Your task to perform on an android device: change timer sound Image 0: 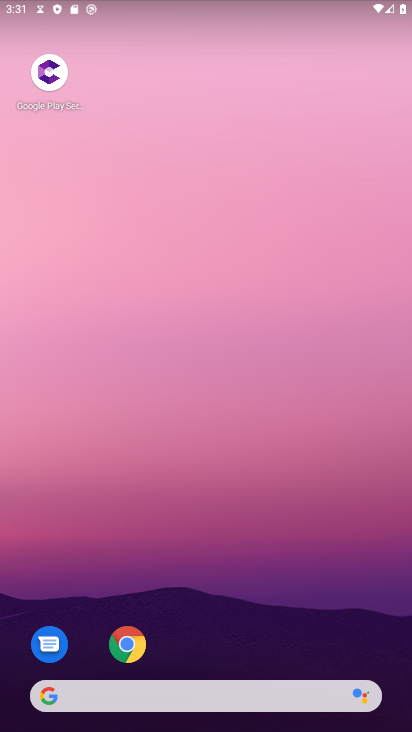
Step 0: drag from (235, 641) to (204, 78)
Your task to perform on an android device: change timer sound Image 1: 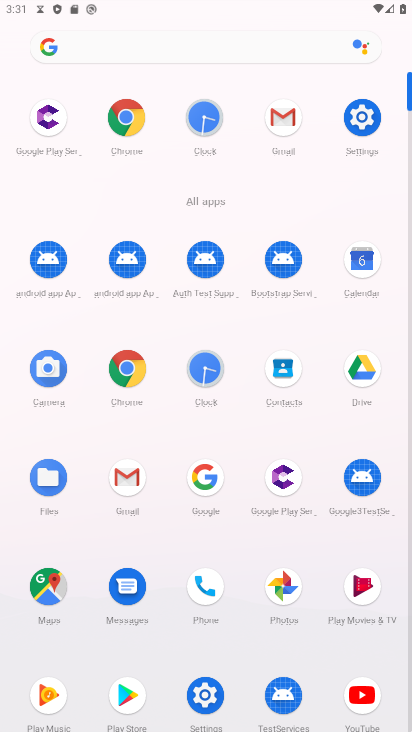
Step 1: click (209, 370)
Your task to perform on an android device: change timer sound Image 2: 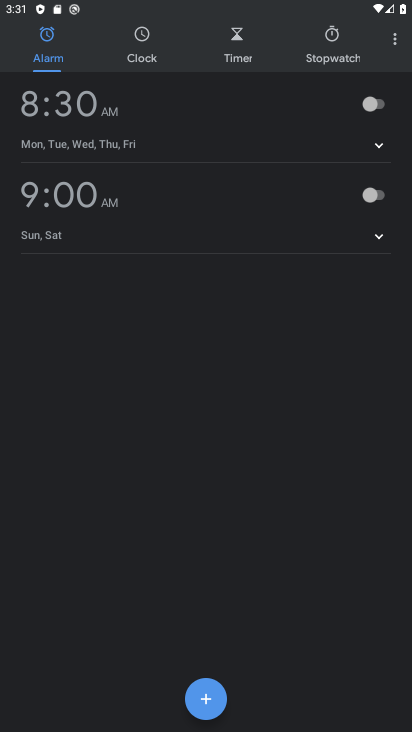
Step 2: click (395, 41)
Your task to perform on an android device: change timer sound Image 3: 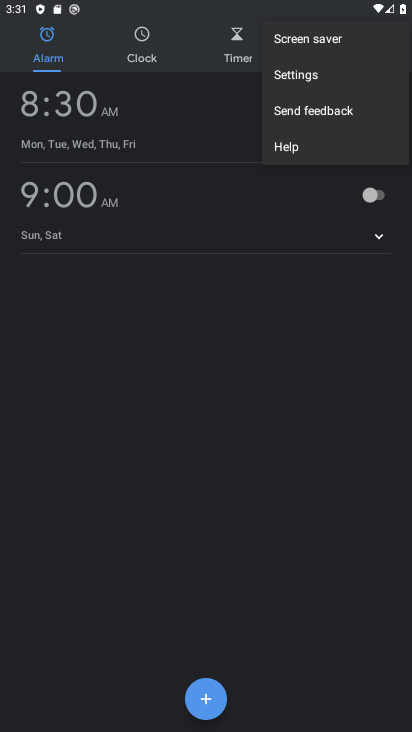
Step 3: click (300, 84)
Your task to perform on an android device: change timer sound Image 4: 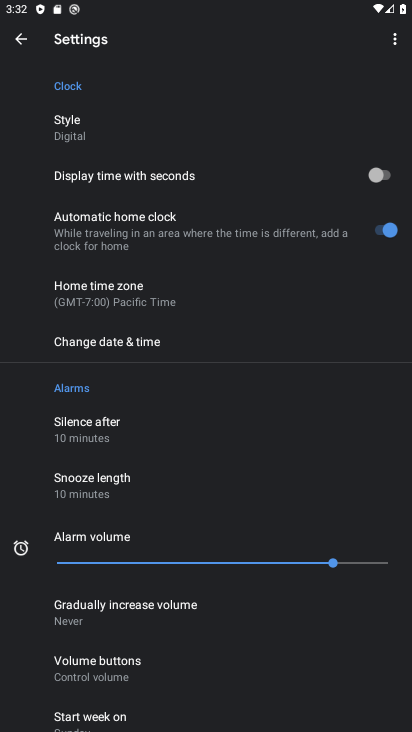
Step 4: drag from (121, 549) to (175, 455)
Your task to perform on an android device: change timer sound Image 5: 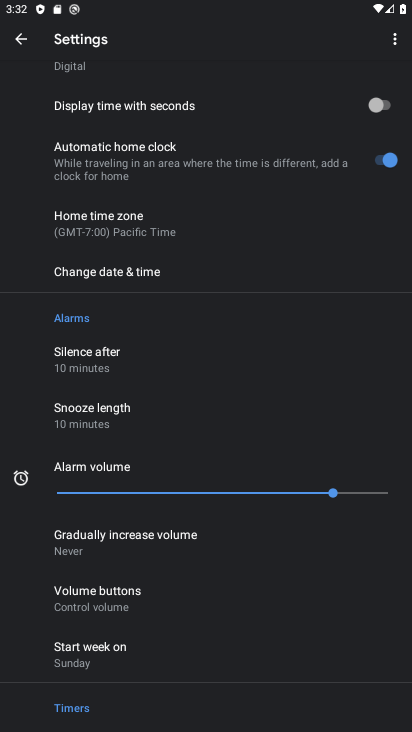
Step 5: drag from (159, 587) to (211, 420)
Your task to perform on an android device: change timer sound Image 6: 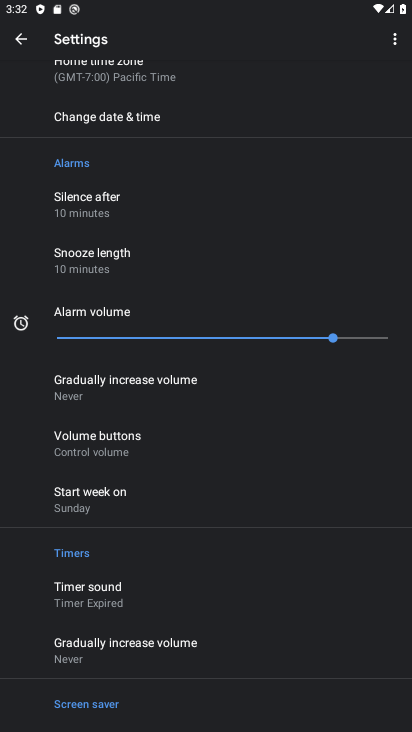
Step 6: drag from (153, 574) to (207, 491)
Your task to perform on an android device: change timer sound Image 7: 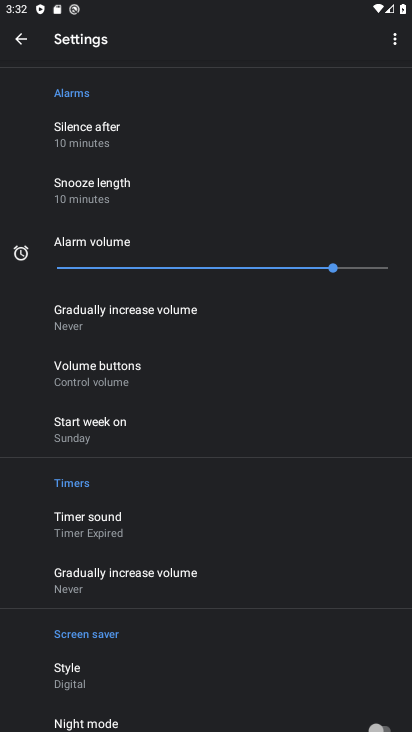
Step 7: click (122, 522)
Your task to perform on an android device: change timer sound Image 8: 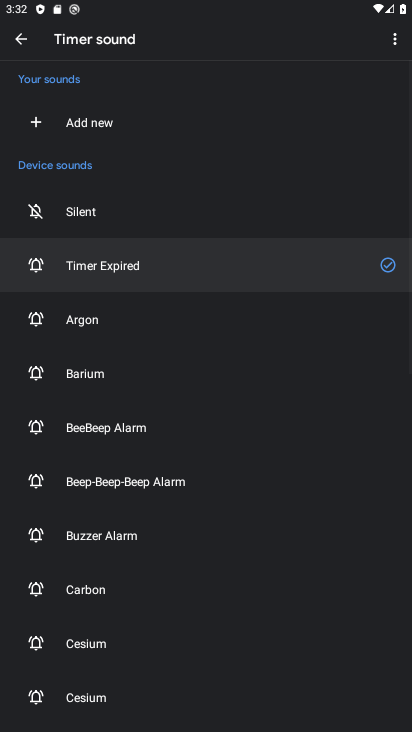
Step 8: click (129, 528)
Your task to perform on an android device: change timer sound Image 9: 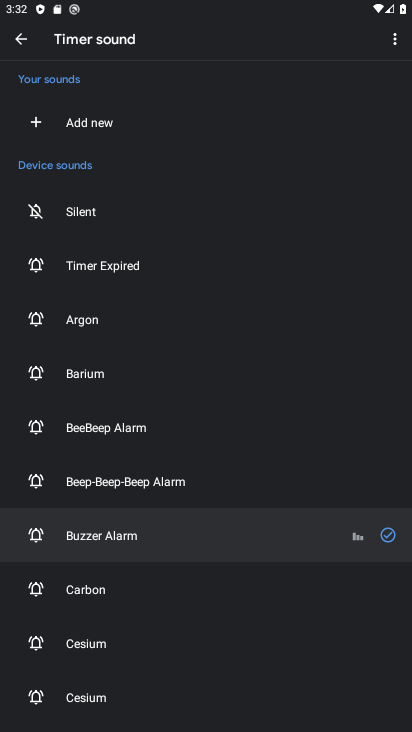
Step 9: task complete